Your task to perform on an android device: Empty the shopping cart on ebay. Add rayovac triple a to the cart on ebay Image 0: 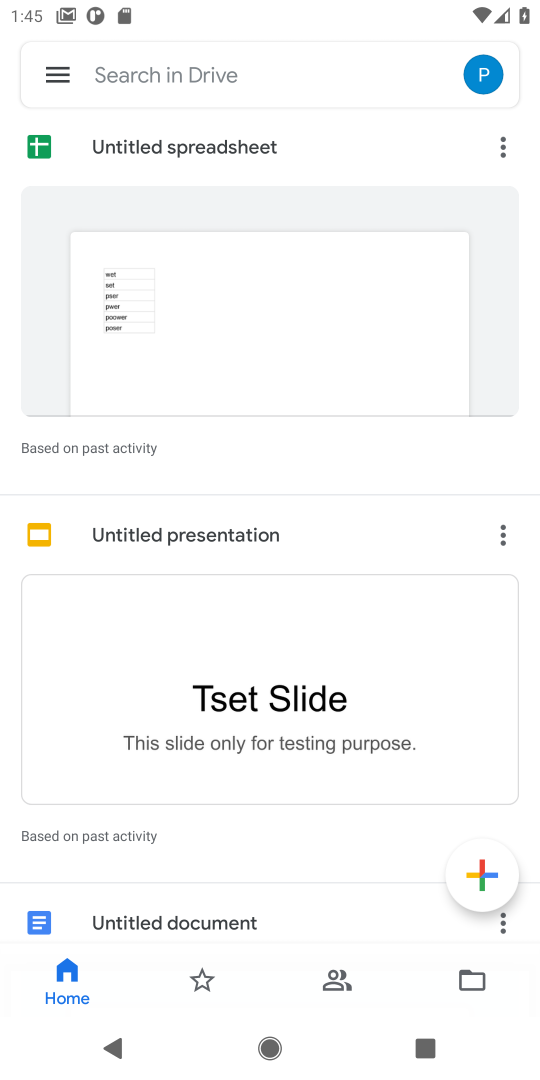
Step 0: press home button
Your task to perform on an android device: Empty the shopping cart on ebay. Add rayovac triple a to the cart on ebay Image 1: 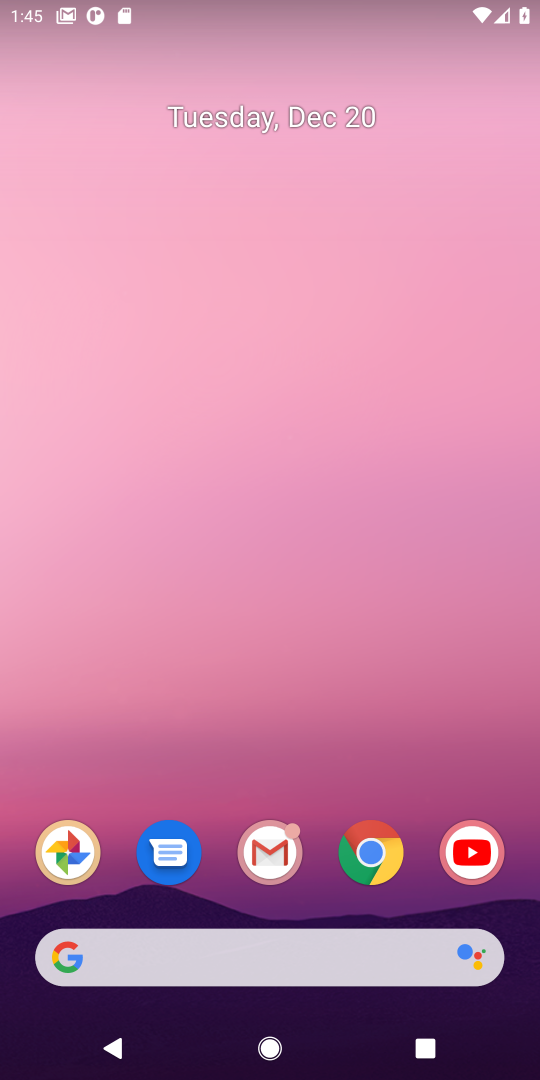
Step 1: click (378, 859)
Your task to perform on an android device: Empty the shopping cart on ebay. Add rayovac triple a to the cart on ebay Image 2: 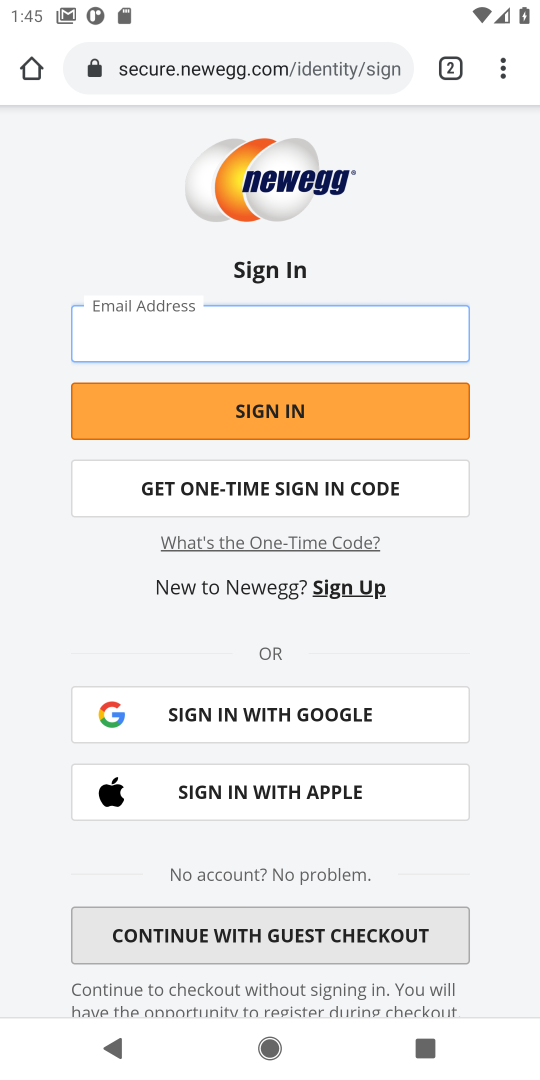
Step 2: click (212, 75)
Your task to perform on an android device: Empty the shopping cart on ebay. Add rayovac triple a to the cart on ebay Image 3: 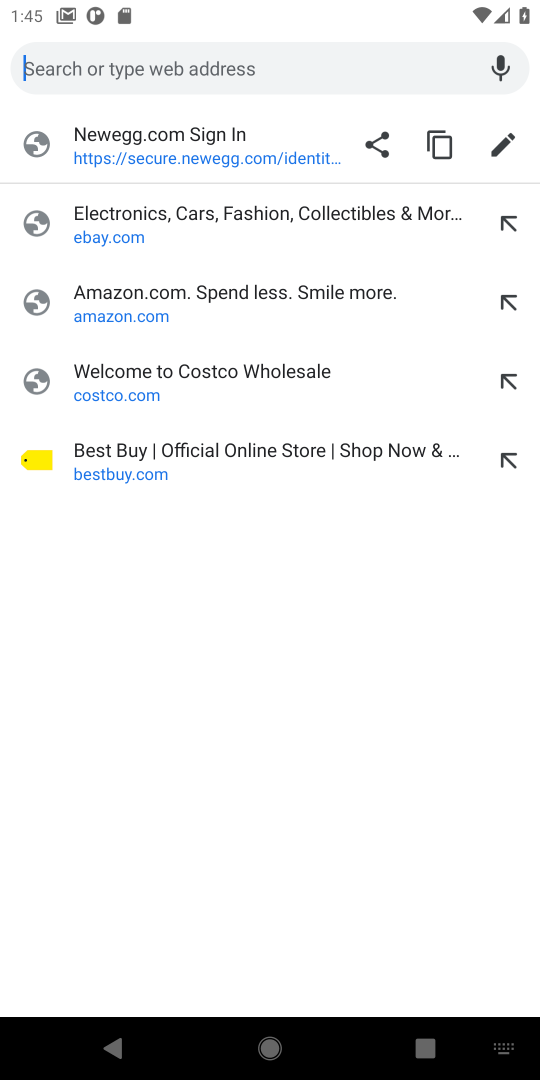
Step 3: click (96, 232)
Your task to perform on an android device: Empty the shopping cart on ebay. Add rayovac triple a to the cart on ebay Image 4: 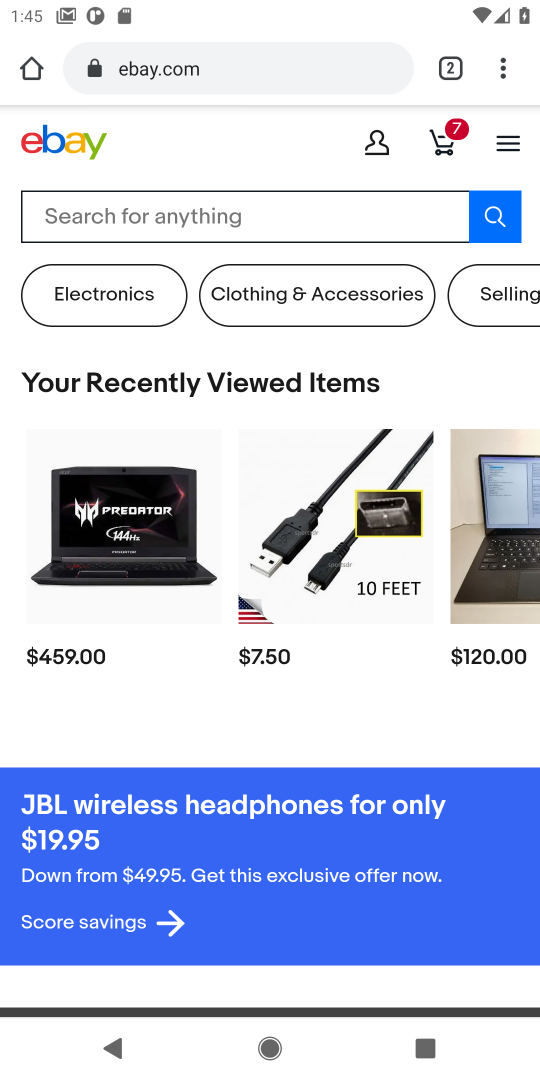
Step 4: click (444, 153)
Your task to perform on an android device: Empty the shopping cart on ebay. Add rayovac triple a to the cart on ebay Image 5: 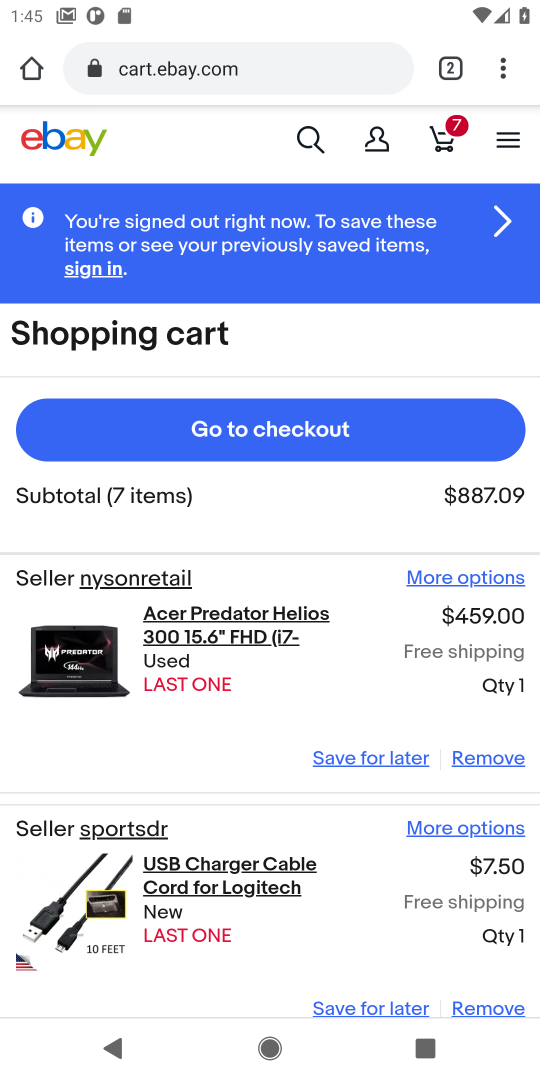
Step 5: click (471, 766)
Your task to perform on an android device: Empty the shopping cart on ebay. Add rayovac triple a to the cart on ebay Image 6: 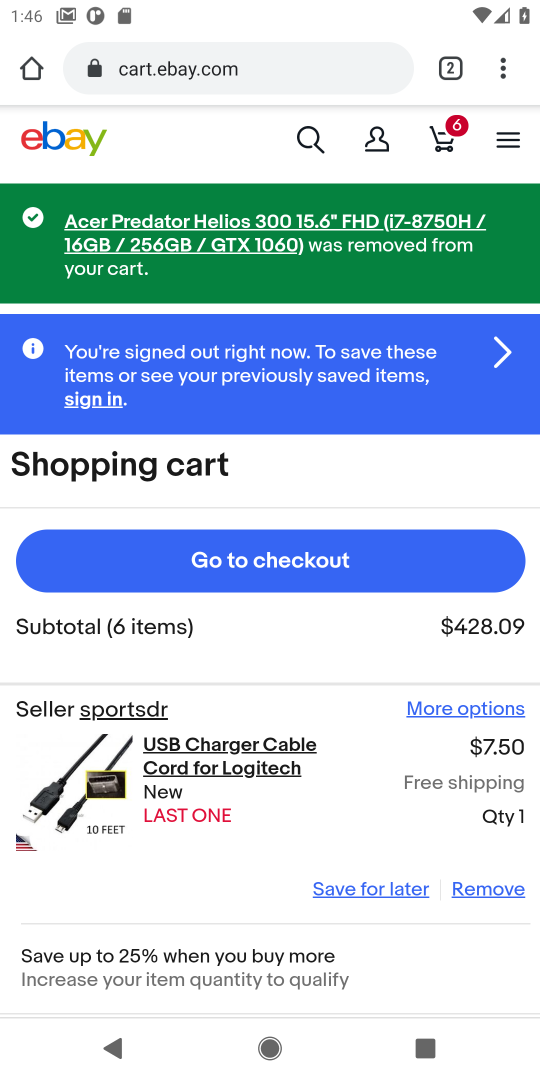
Step 6: click (469, 890)
Your task to perform on an android device: Empty the shopping cart on ebay. Add rayovac triple a to the cart on ebay Image 7: 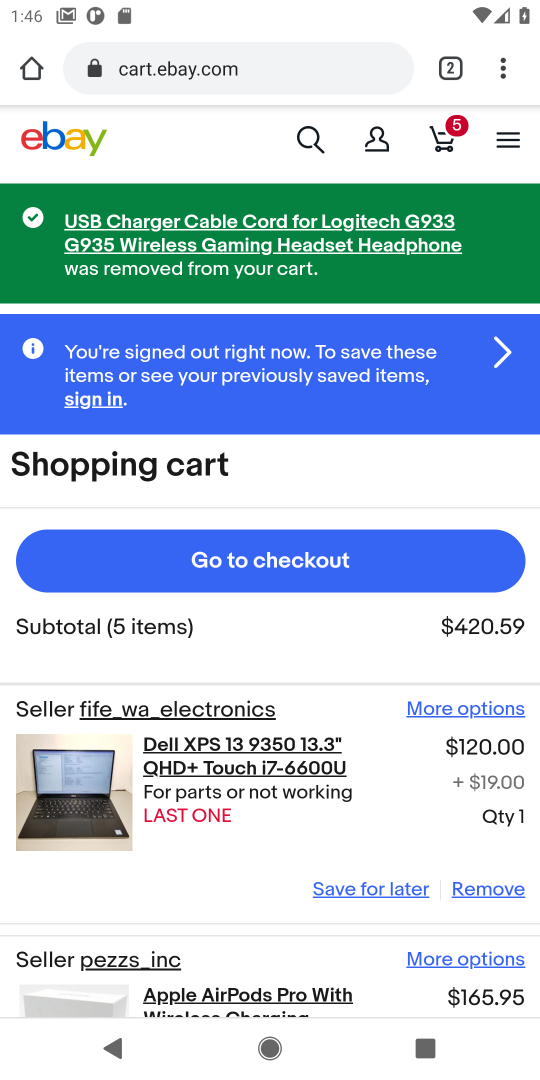
Step 7: click (469, 890)
Your task to perform on an android device: Empty the shopping cart on ebay. Add rayovac triple a to the cart on ebay Image 8: 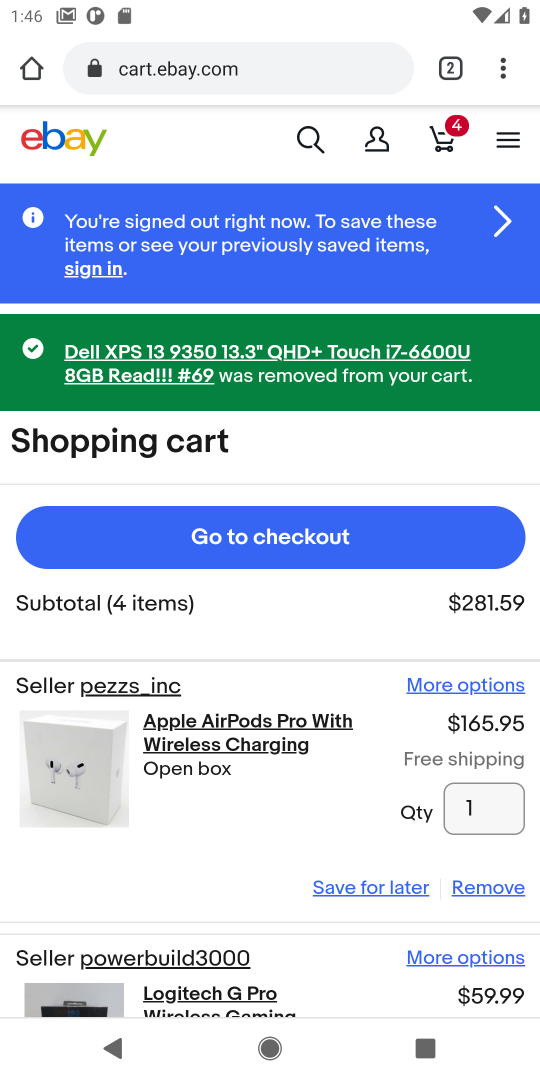
Step 8: click (469, 890)
Your task to perform on an android device: Empty the shopping cart on ebay. Add rayovac triple a to the cart on ebay Image 9: 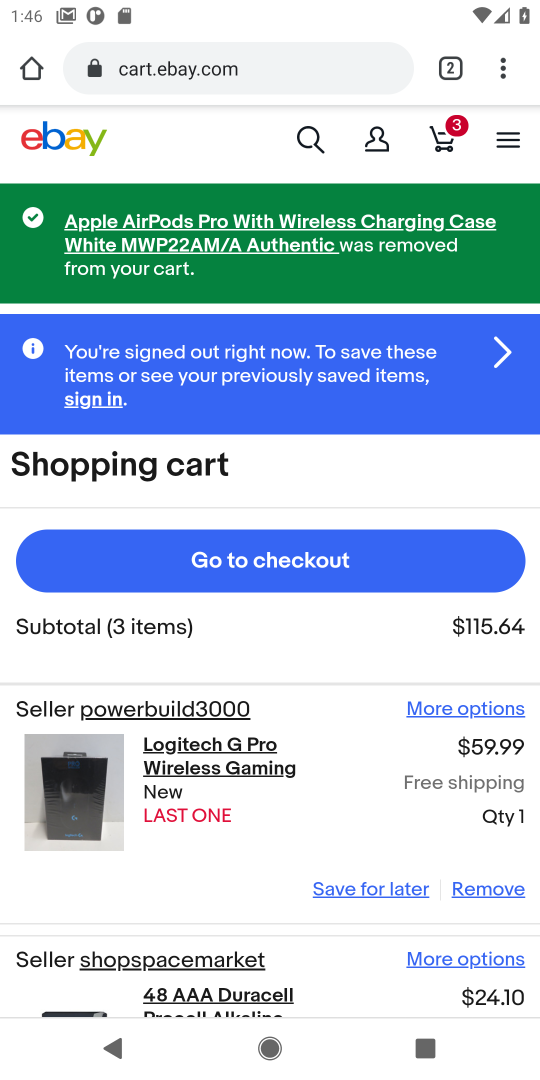
Step 9: click (469, 890)
Your task to perform on an android device: Empty the shopping cart on ebay. Add rayovac triple a to the cart on ebay Image 10: 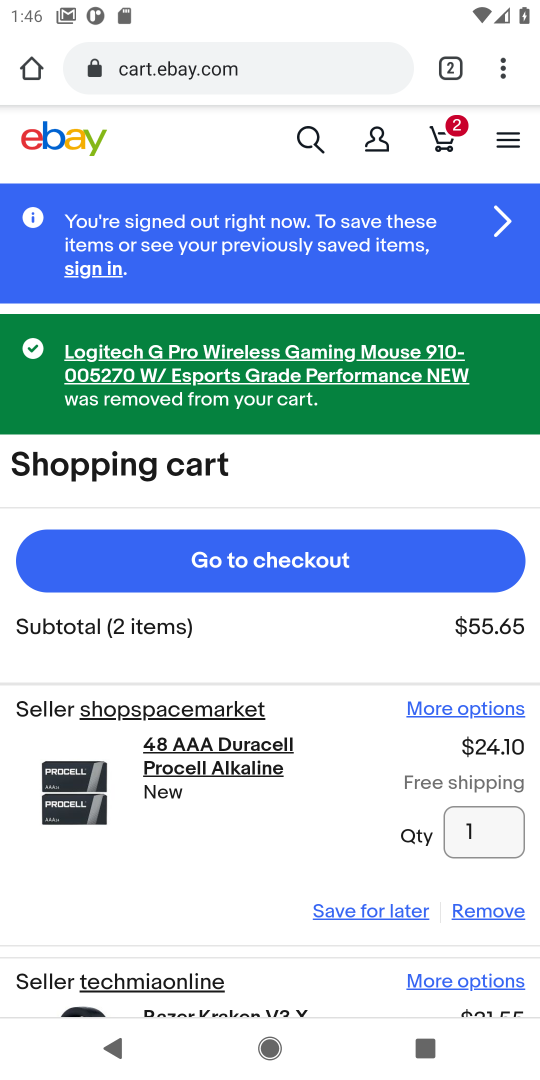
Step 10: click (471, 904)
Your task to perform on an android device: Empty the shopping cart on ebay. Add rayovac triple a to the cart on ebay Image 11: 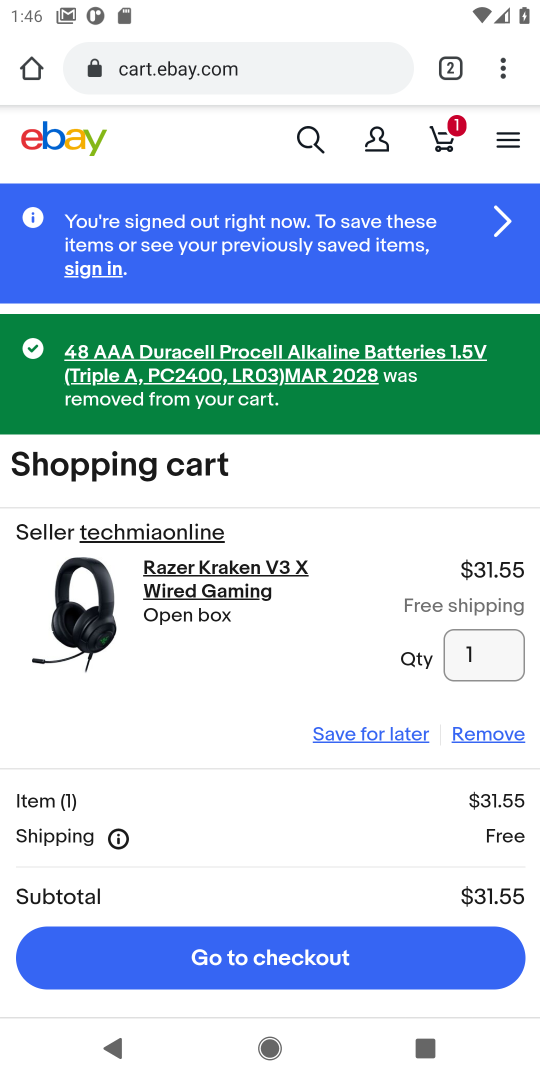
Step 11: click (482, 733)
Your task to perform on an android device: Empty the shopping cart on ebay. Add rayovac triple a to the cart on ebay Image 12: 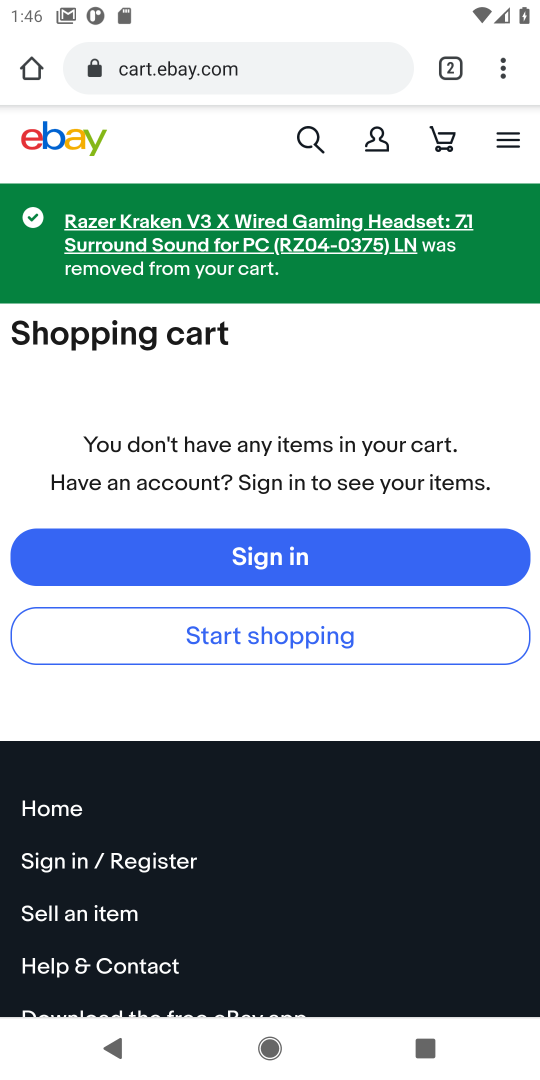
Step 12: click (306, 146)
Your task to perform on an android device: Empty the shopping cart on ebay. Add rayovac triple a to the cart on ebay Image 13: 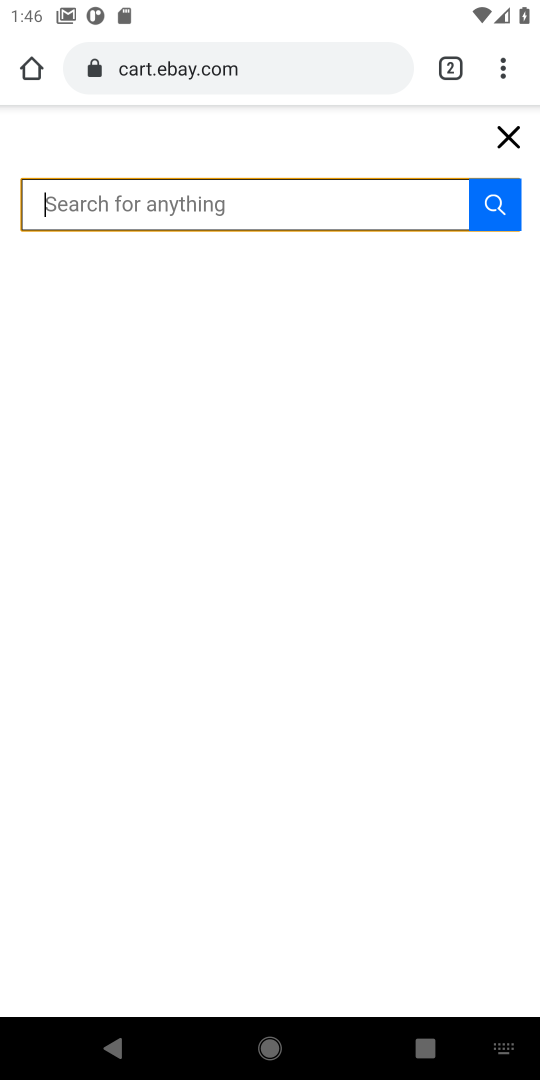
Step 13: type " rayovac triple a"
Your task to perform on an android device: Empty the shopping cart on ebay. Add rayovac triple a to the cart on ebay Image 14: 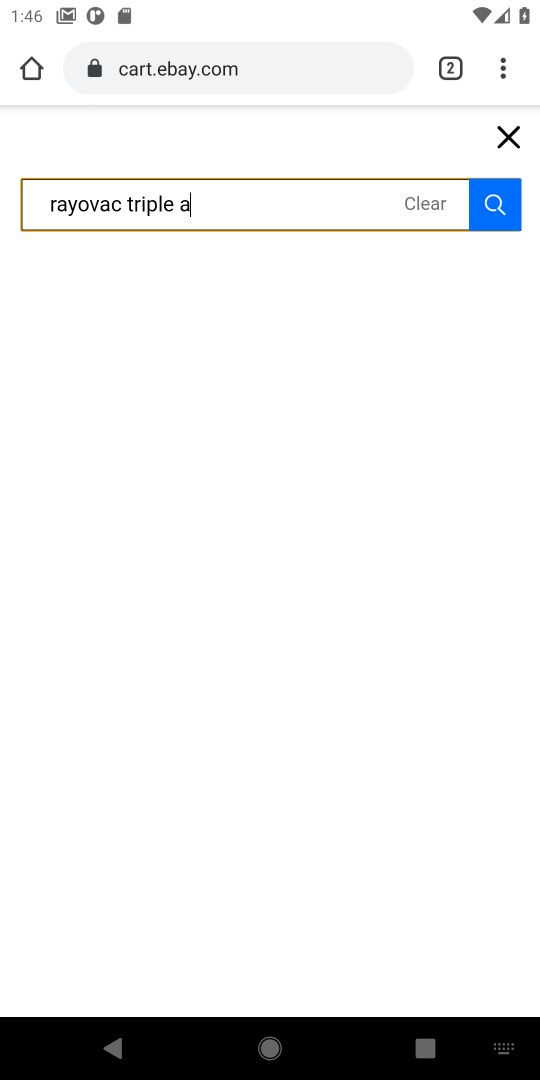
Step 14: click (502, 211)
Your task to perform on an android device: Empty the shopping cart on ebay. Add rayovac triple a to the cart on ebay Image 15: 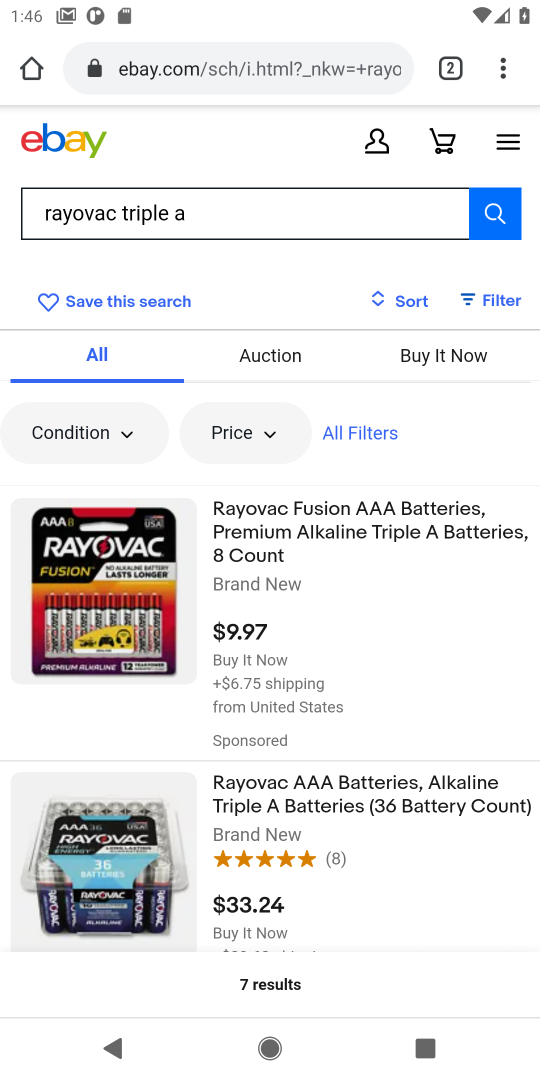
Step 15: click (237, 535)
Your task to perform on an android device: Empty the shopping cart on ebay. Add rayovac triple a to the cart on ebay Image 16: 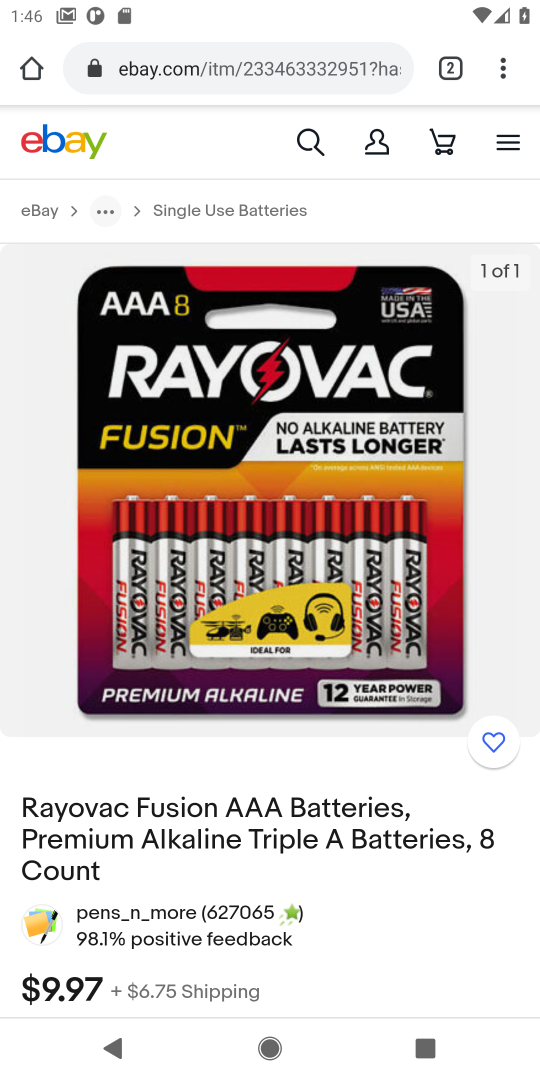
Step 16: drag from (240, 810) to (247, 510)
Your task to perform on an android device: Empty the shopping cart on ebay. Add rayovac triple a to the cart on ebay Image 17: 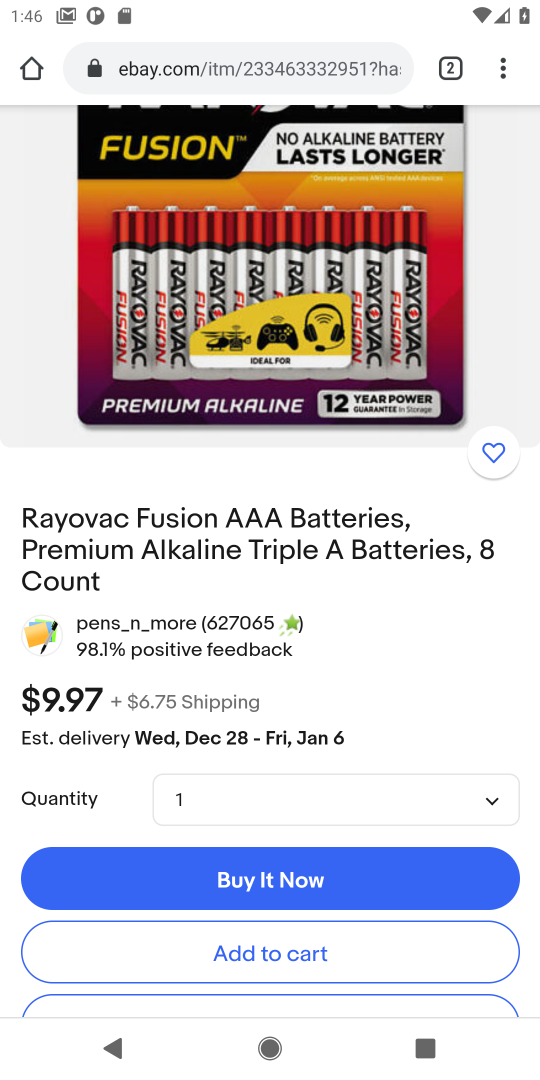
Step 17: click (259, 940)
Your task to perform on an android device: Empty the shopping cart on ebay. Add rayovac triple a to the cart on ebay Image 18: 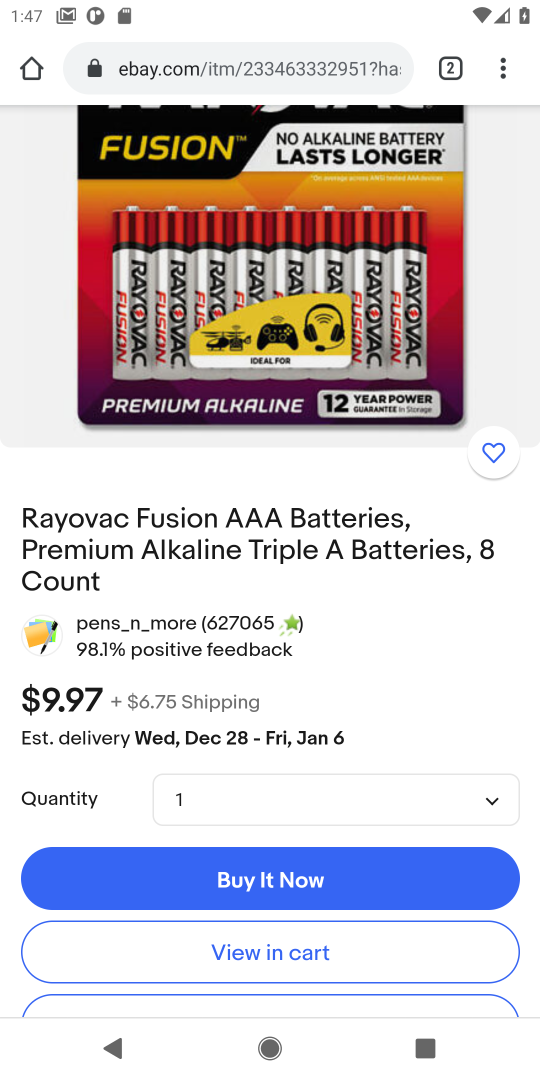
Step 18: task complete